Your task to perform on an android device: Is it going to rain tomorrow? Image 0: 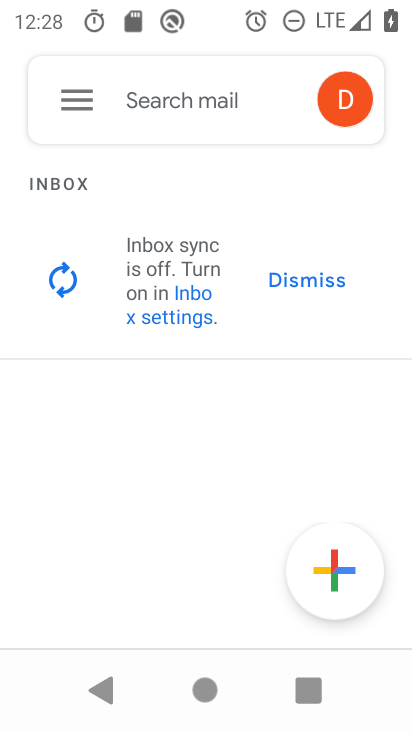
Step 0: press home button
Your task to perform on an android device: Is it going to rain tomorrow? Image 1: 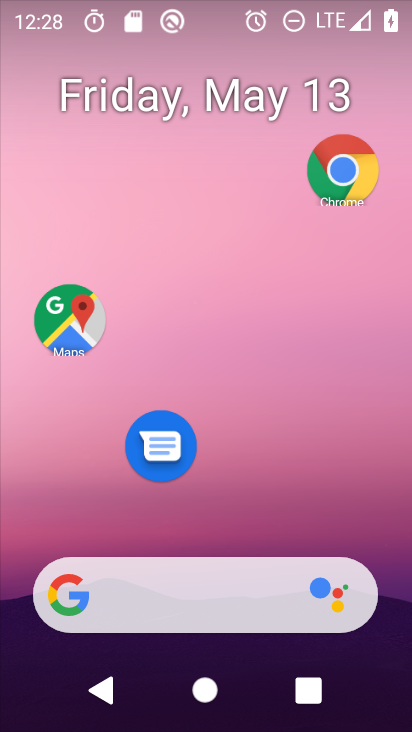
Step 1: drag from (343, 543) to (368, 16)
Your task to perform on an android device: Is it going to rain tomorrow? Image 2: 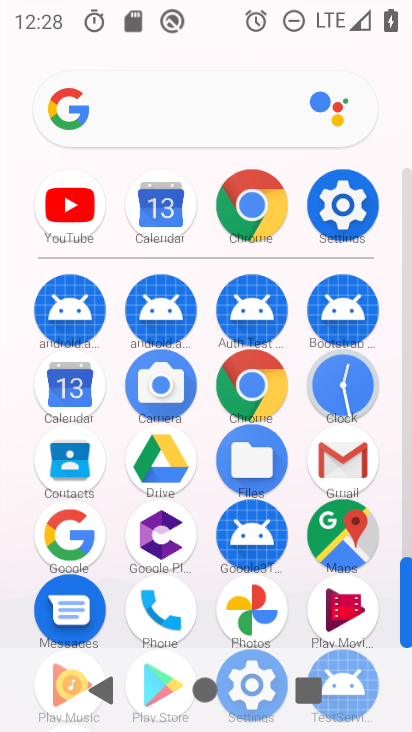
Step 2: click (273, 388)
Your task to perform on an android device: Is it going to rain tomorrow? Image 3: 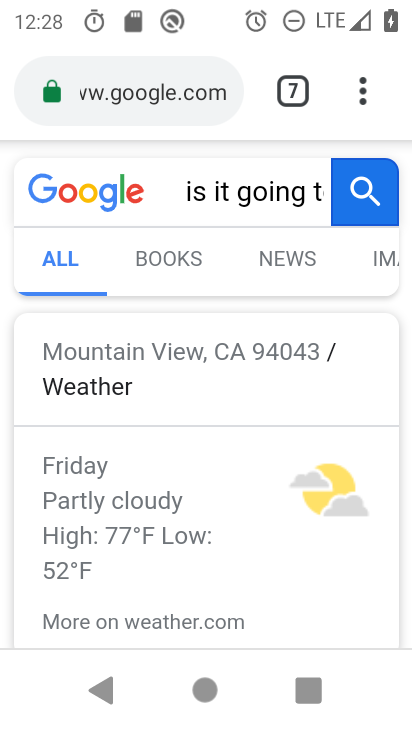
Step 3: task complete